Your task to perform on an android device: Open Amazon Image 0: 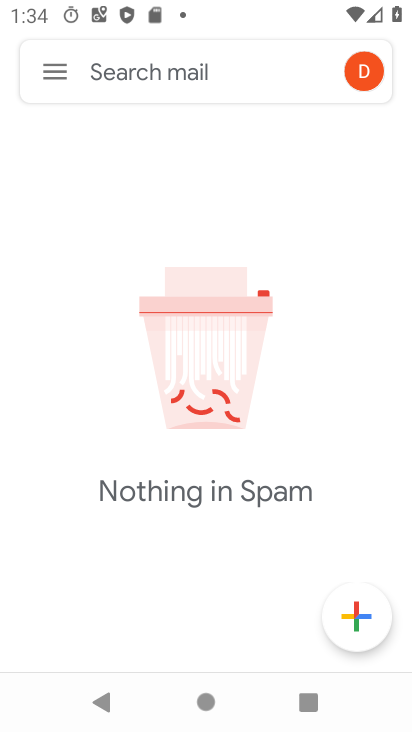
Step 0: press home button
Your task to perform on an android device: Open Amazon Image 1: 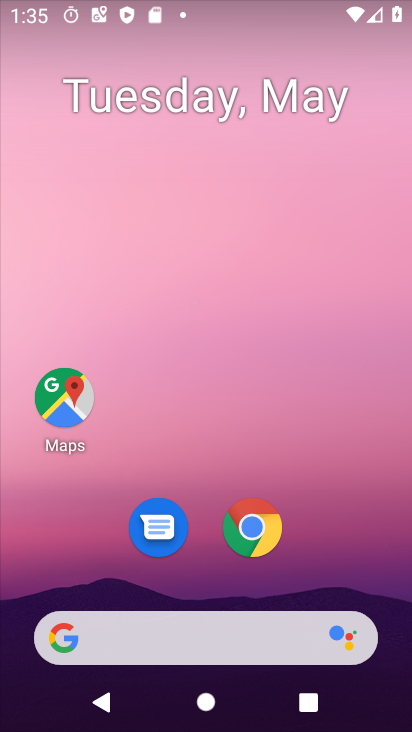
Step 1: drag from (201, 658) to (225, 218)
Your task to perform on an android device: Open Amazon Image 2: 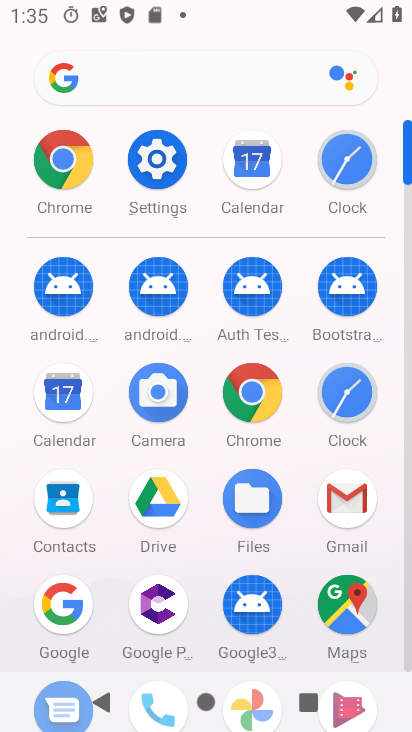
Step 2: click (80, 167)
Your task to perform on an android device: Open Amazon Image 3: 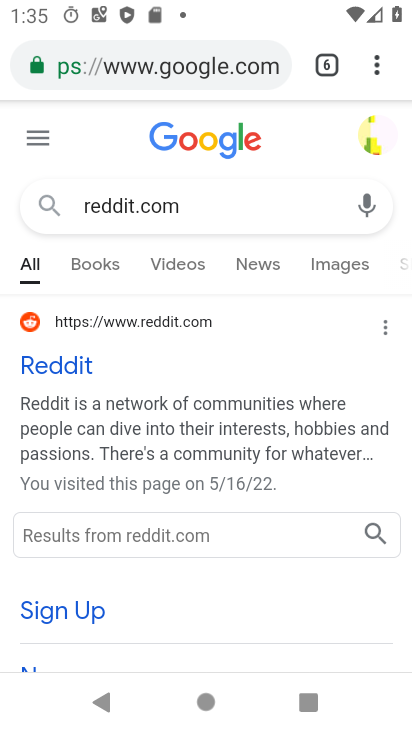
Step 3: click (312, 62)
Your task to perform on an android device: Open Amazon Image 4: 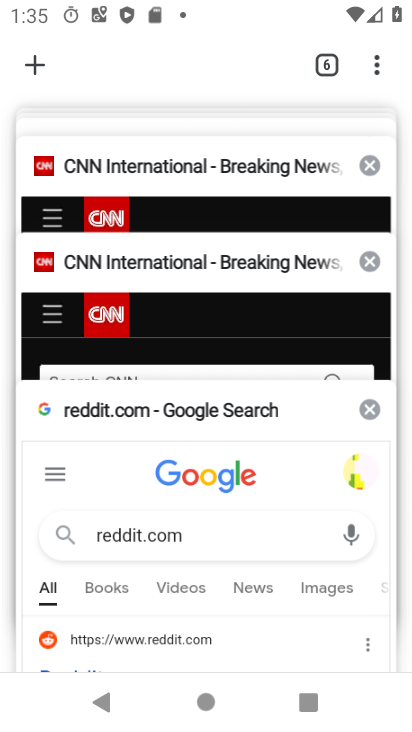
Step 4: click (34, 75)
Your task to perform on an android device: Open Amazon Image 5: 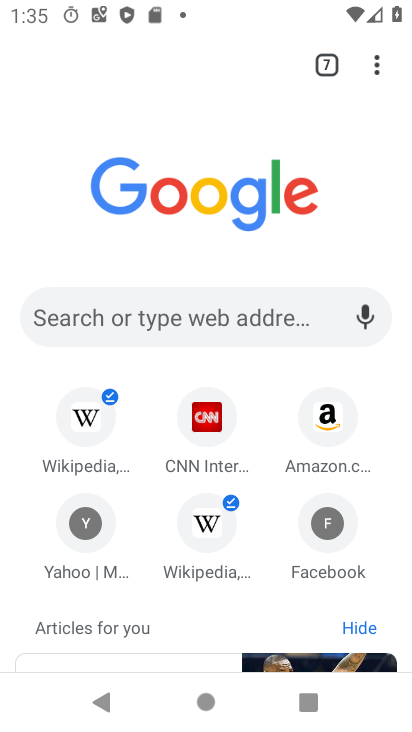
Step 5: click (324, 417)
Your task to perform on an android device: Open Amazon Image 6: 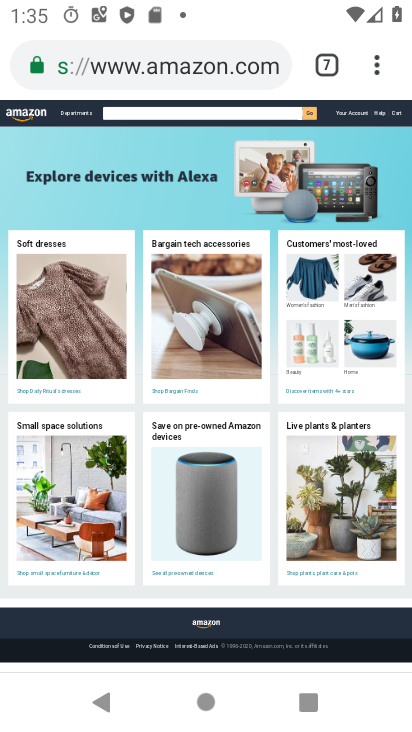
Step 6: task complete